Your task to perform on an android device: Open settings Image 0: 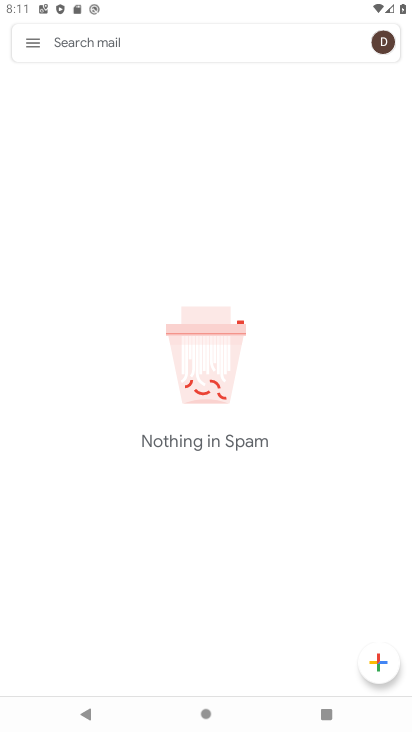
Step 0: press home button
Your task to perform on an android device: Open settings Image 1: 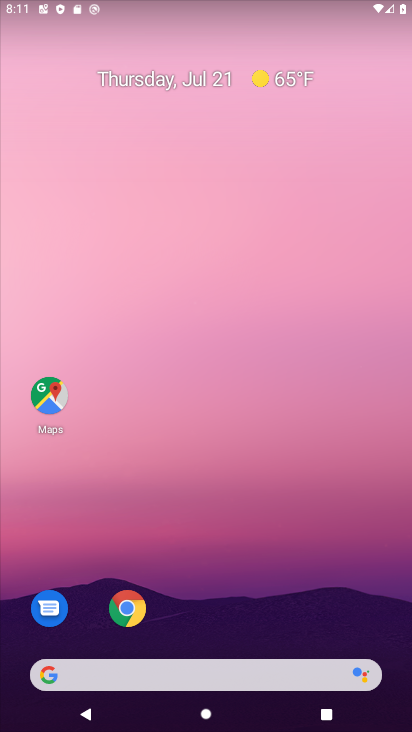
Step 1: drag from (207, 673) to (381, 18)
Your task to perform on an android device: Open settings Image 2: 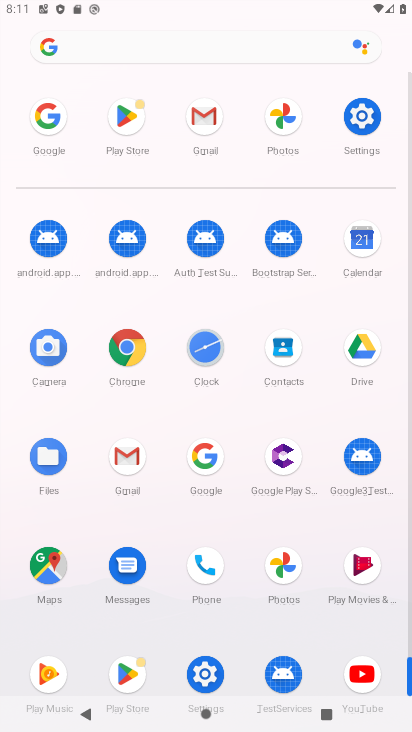
Step 2: click (363, 118)
Your task to perform on an android device: Open settings Image 3: 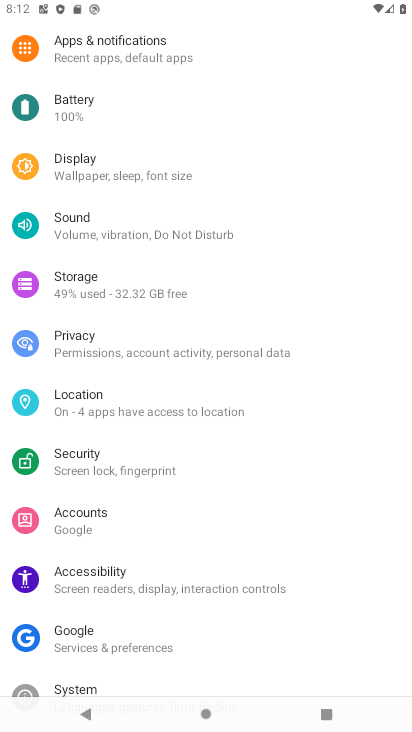
Step 3: task complete